Your task to perform on an android device: Check the weather Image 0: 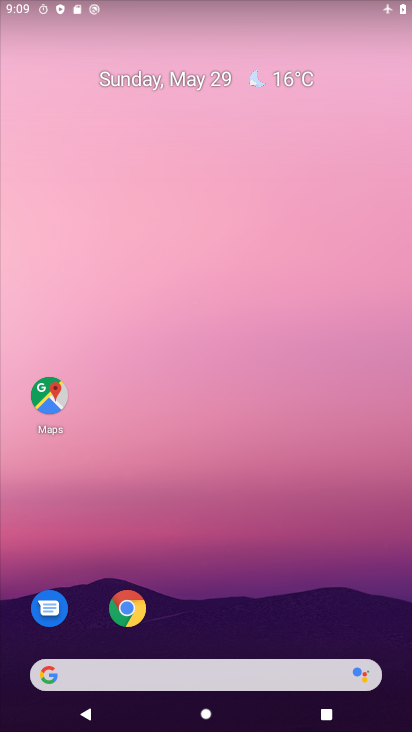
Step 0: click (233, 672)
Your task to perform on an android device: Check the weather Image 1: 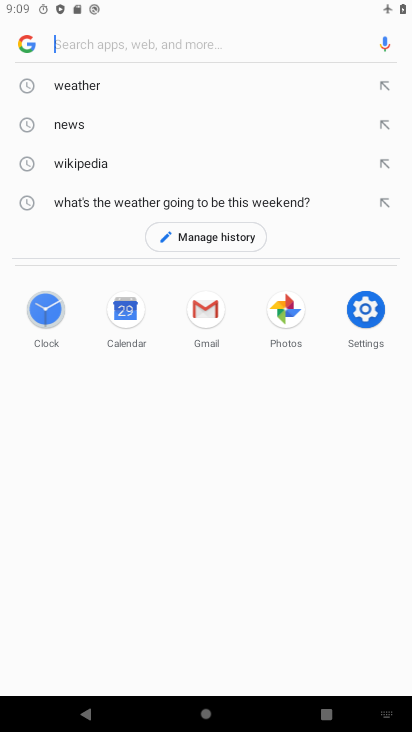
Step 1: click (90, 86)
Your task to perform on an android device: Check the weather Image 2: 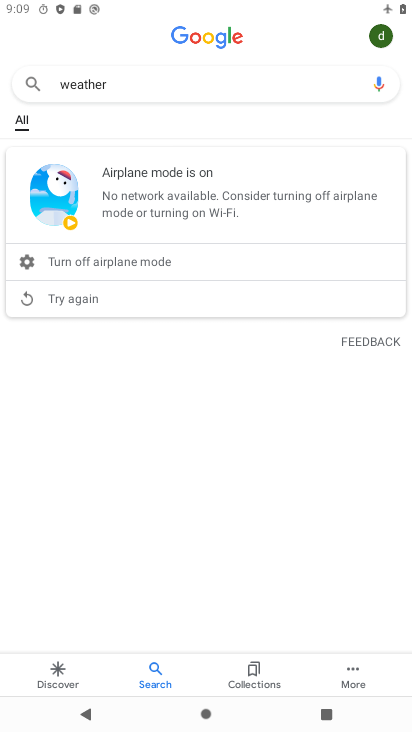
Step 2: press back button
Your task to perform on an android device: Check the weather Image 3: 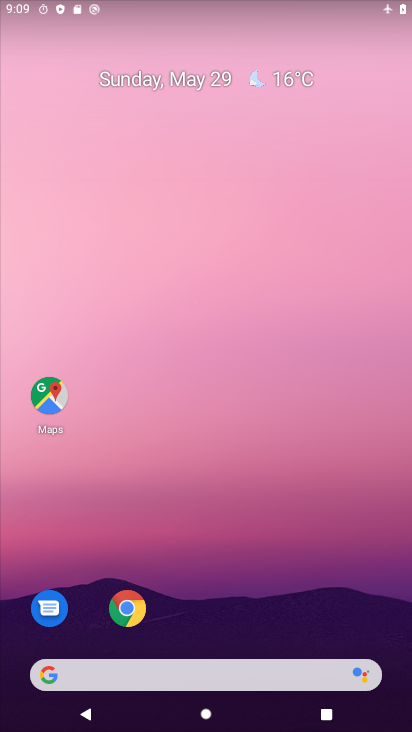
Step 3: drag from (230, 613) to (293, 4)
Your task to perform on an android device: Check the weather Image 4: 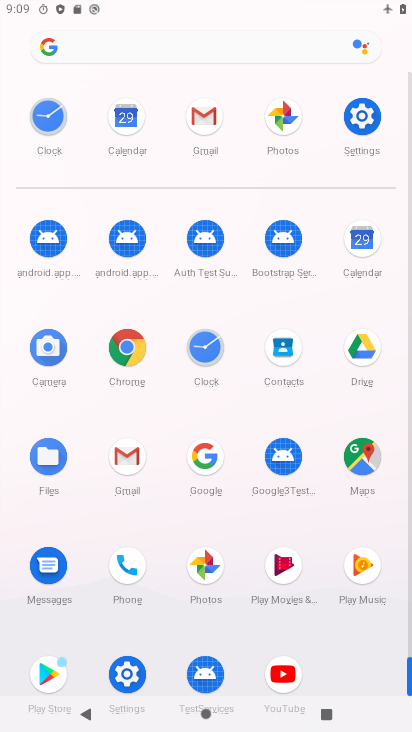
Step 4: click (375, 166)
Your task to perform on an android device: Check the weather Image 5: 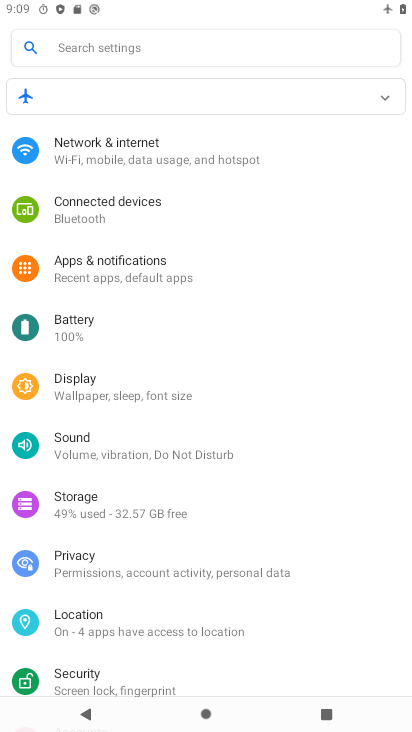
Step 5: click (381, 102)
Your task to perform on an android device: Check the weather Image 6: 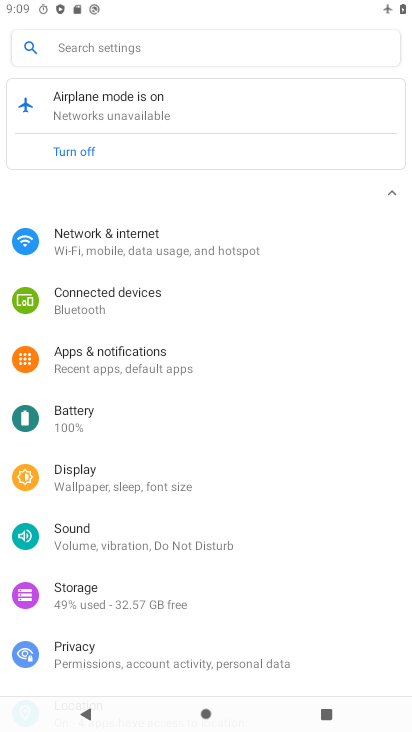
Step 6: click (91, 149)
Your task to perform on an android device: Check the weather Image 7: 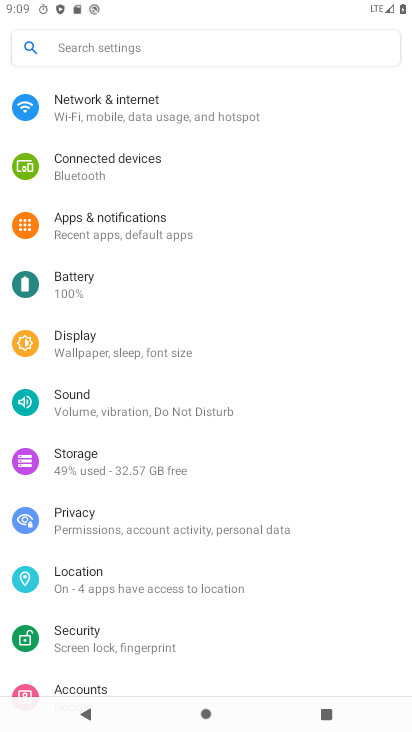
Step 7: press home button
Your task to perform on an android device: Check the weather Image 8: 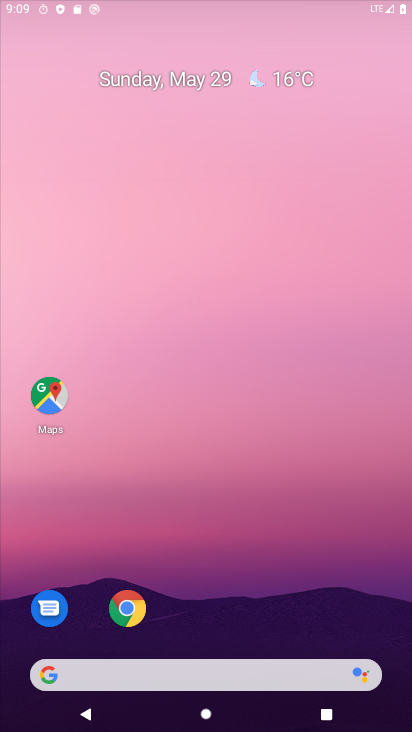
Step 8: drag from (231, 617) to (226, 67)
Your task to perform on an android device: Check the weather Image 9: 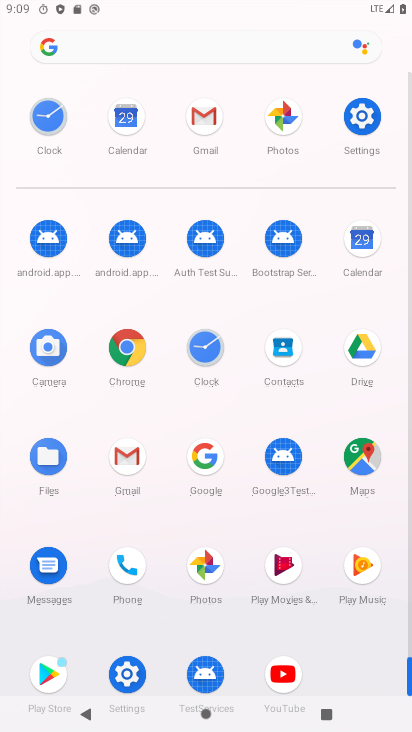
Step 9: click (206, 477)
Your task to perform on an android device: Check the weather Image 10: 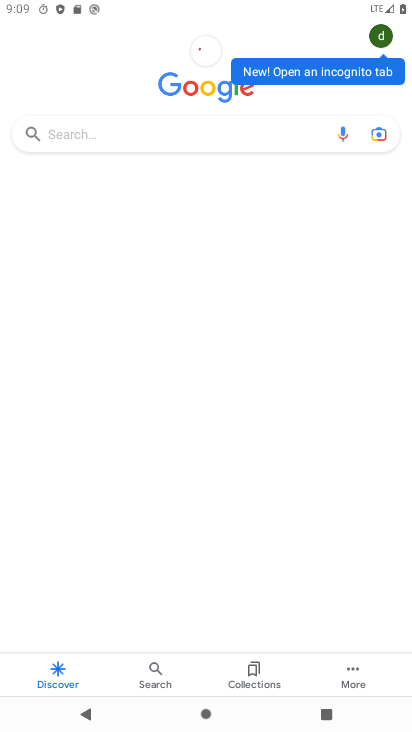
Step 10: click (194, 128)
Your task to perform on an android device: Check the weather Image 11: 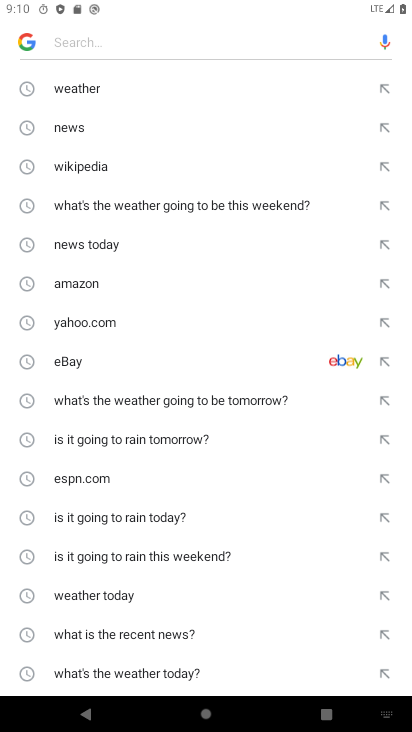
Step 11: click (72, 90)
Your task to perform on an android device: Check the weather Image 12: 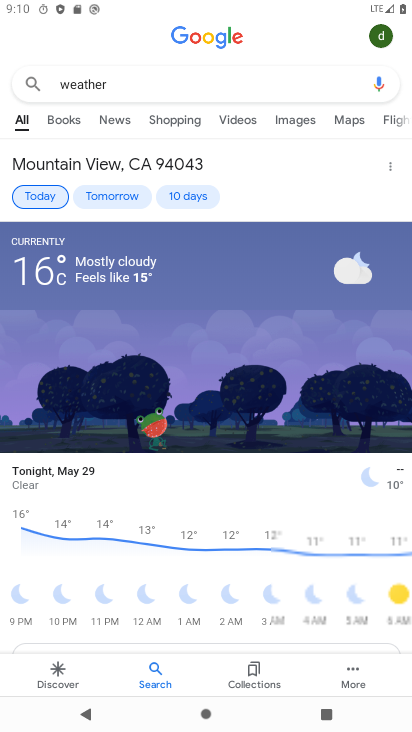
Step 12: task complete